Your task to perform on an android device: check data usage Image 0: 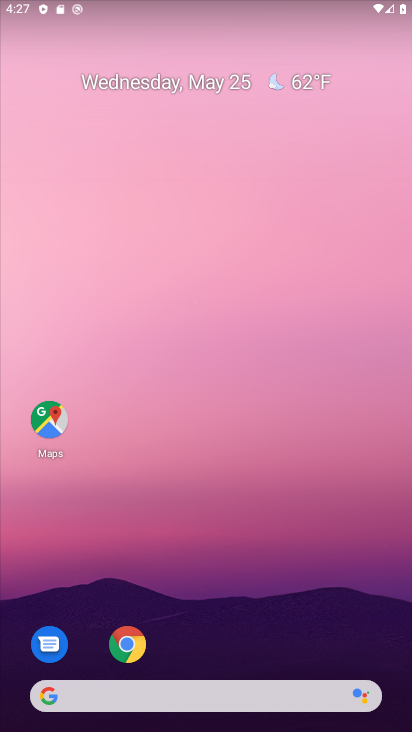
Step 0: drag from (208, 621) to (245, 406)
Your task to perform on an android device: check data usage Image 1: 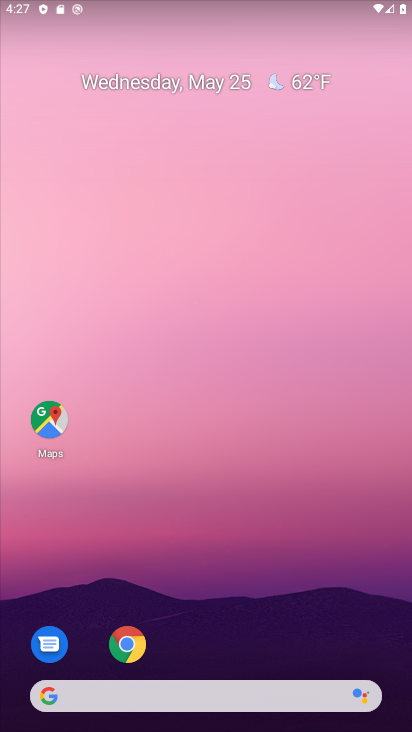
Step 1: drag from (221, 644) to (221, 255)
Your task to perform on an android device: check data usage Image 2: 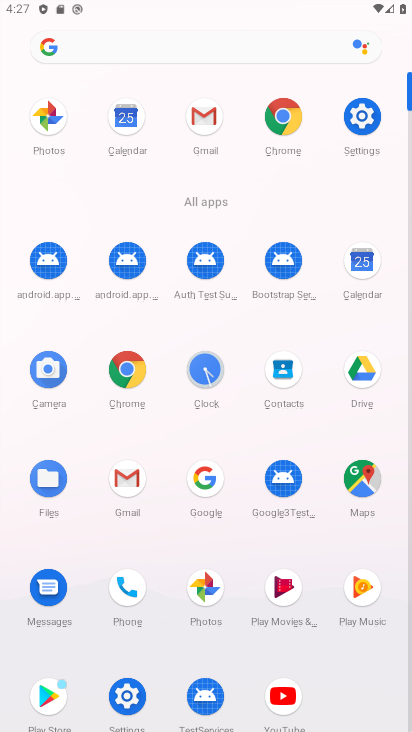
Step 2: click (349, 118)
Your task to perform on an android device: check data usage Image 3: 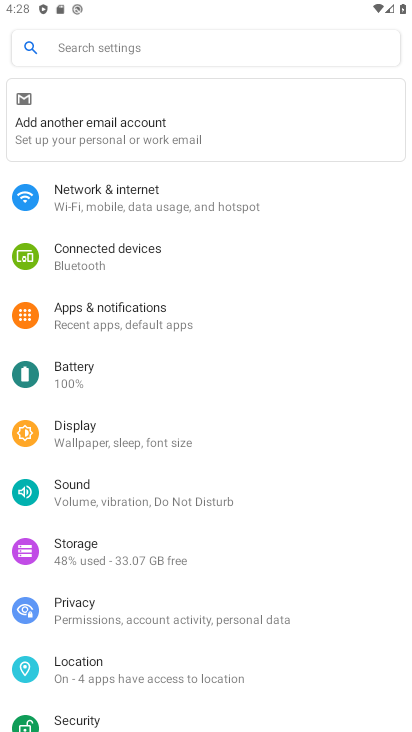
Step 3: click (178, 205)
Your task to perform on an android device: check data usage Image 4: 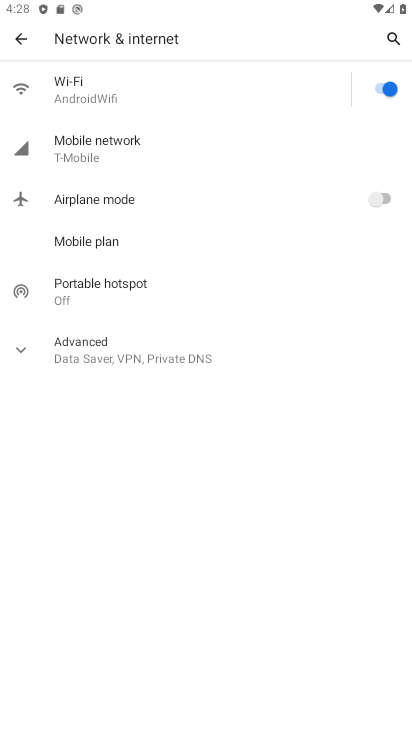
Step 4: click (110, 165)
Your task to perform on an android device: check data usage Image 5: 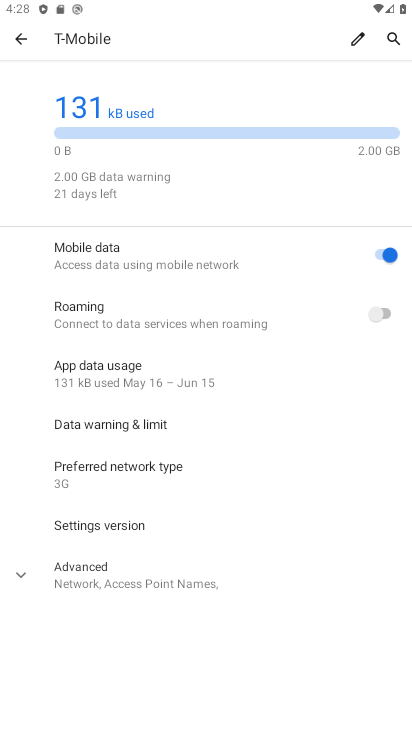
Step 5: task complete